Your task to perform on an android device: Search for sushi restaurants on Maps Image 0: 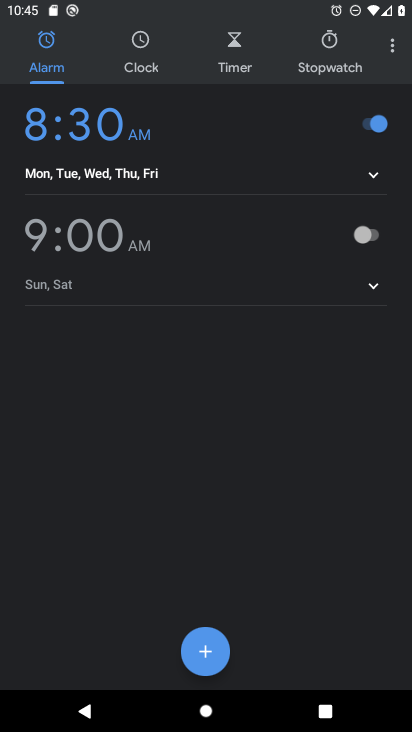
Step 0: press back button
Your task to perform on an android device: Search for sushi restaurants on Maps Image 1: 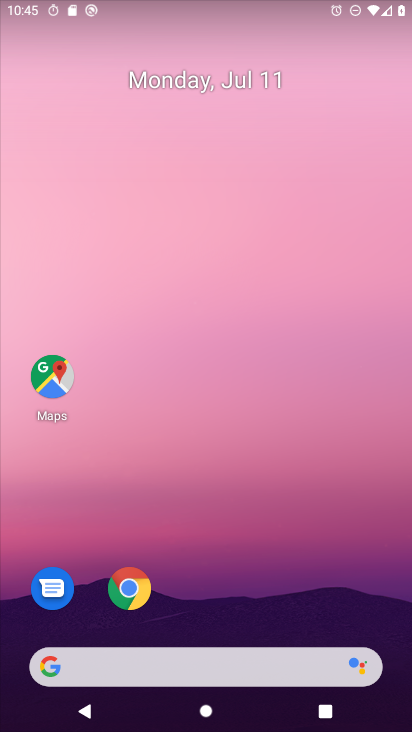
Step 1: click (36, 377)
Your task to perform on an android device: Search for sushi restaurants on Maps Image 2: 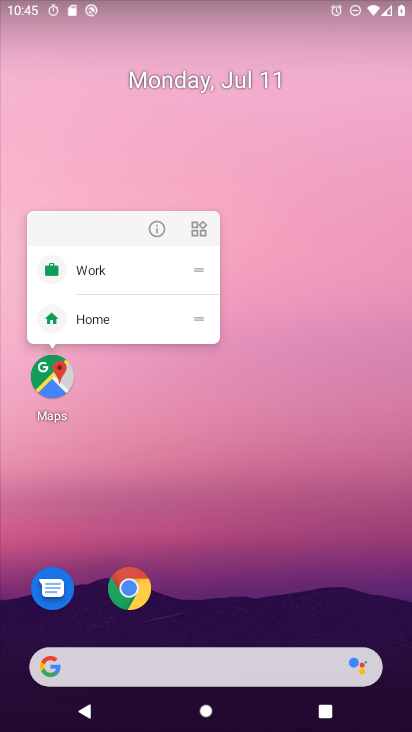
Step 2: click (58, 368)
Your task to perform on an android device: Search for sushi restaurants on Maps Image 3: 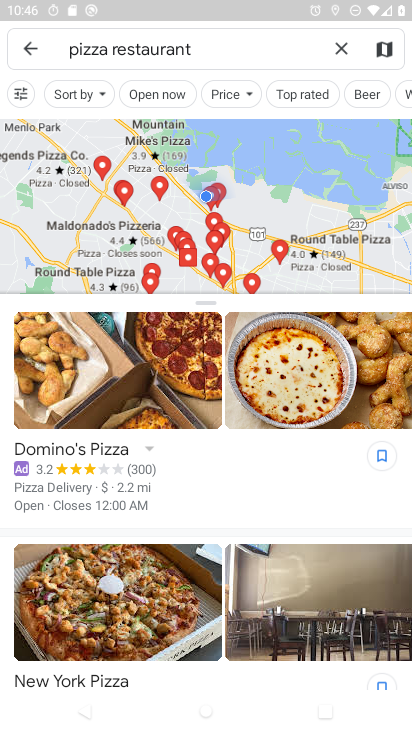
Step 3: click (338, 50)
Your task to perform on an android device: Search for sushi restaurants on Maps Image 4: 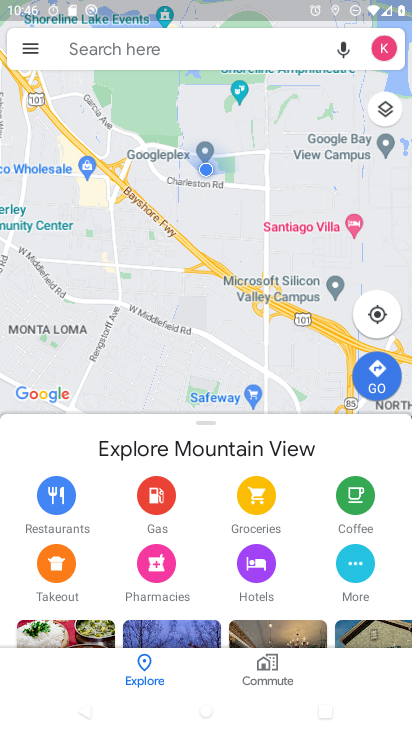
Step 4: click (120, 51)
Your task to perform on an android device: Search for sushi restaurants on Maps Image 5: 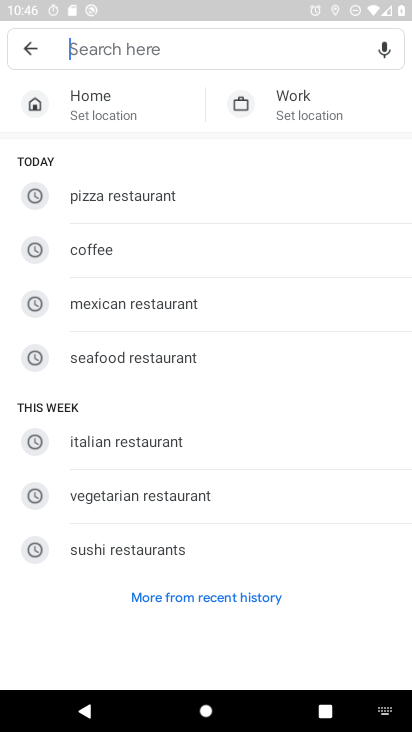
Step 5: click (102, 553)
Your task to perform on an android device: Search for sushi restaurants on Maps Image 6: 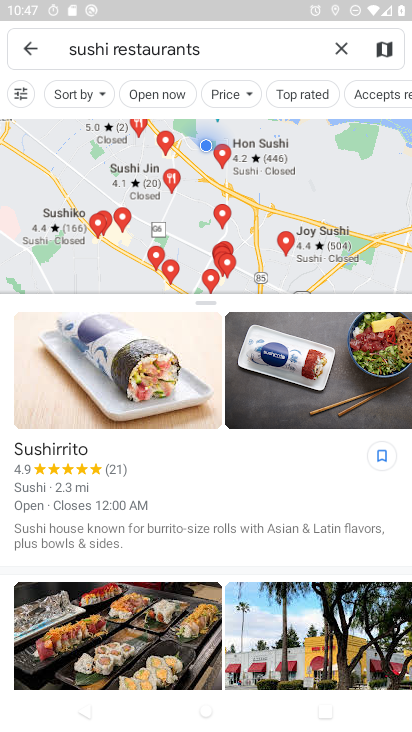
Step 6: task complete